Your task to perform on an android device: find which apps use the phone's location Image 0: 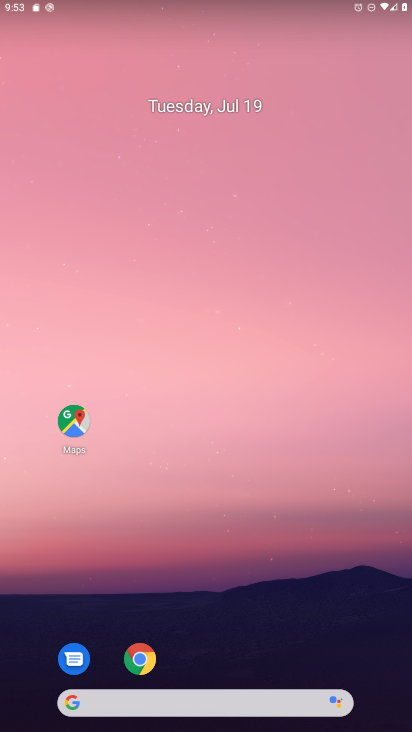
Step 0: drag from (202, 640) to (252, 293)
Your task to perform on an android device: find which apps use the phone's location Image 1: 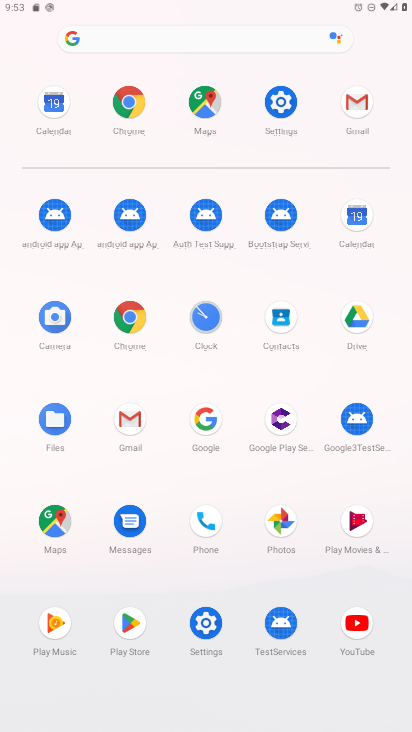
Step 1: click (289, 96)
Your task to perform on an android device: find which apps use the phone's location Image 2: 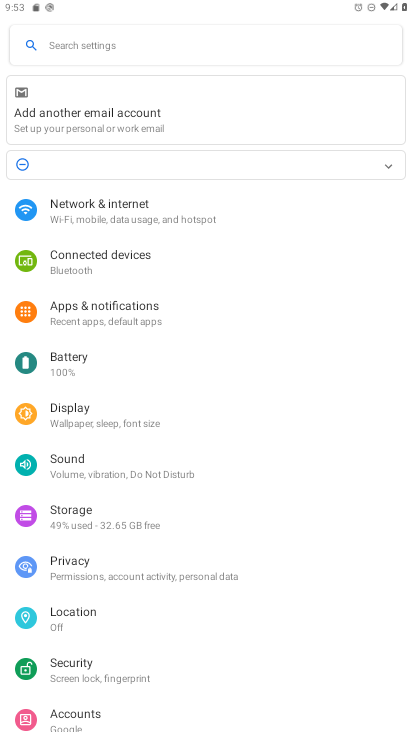
Step 2: click (106, 620)
Your task to perform on an android device: find which apps use the phone's location Image 3: 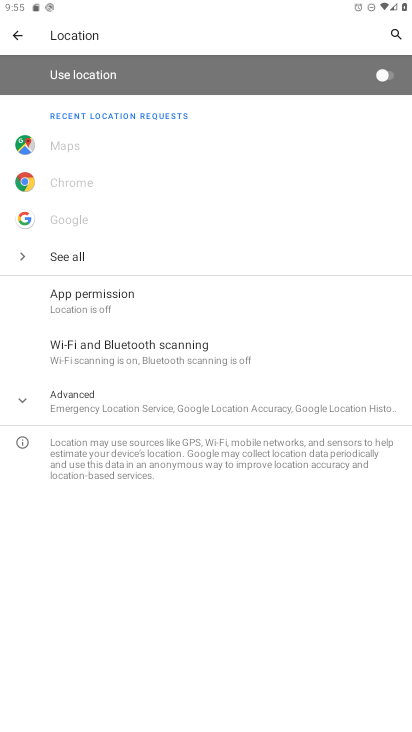
Step 3: task complete